Your task to perform on an android device: all mails in gmail Image 0: 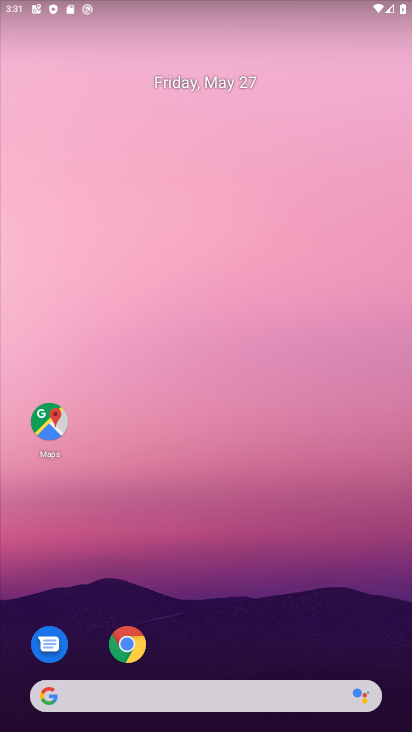
Step 0: drag from (274, 505) to (161, 40)
Your task to perform on an android device: all mails in gmail Image 1: 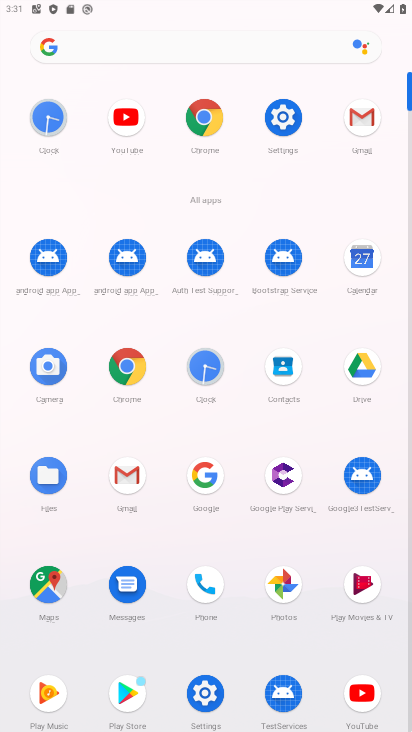
Step 1: click (126, 473)
Your task to perform on an android device: all mails in gmail Image 2: 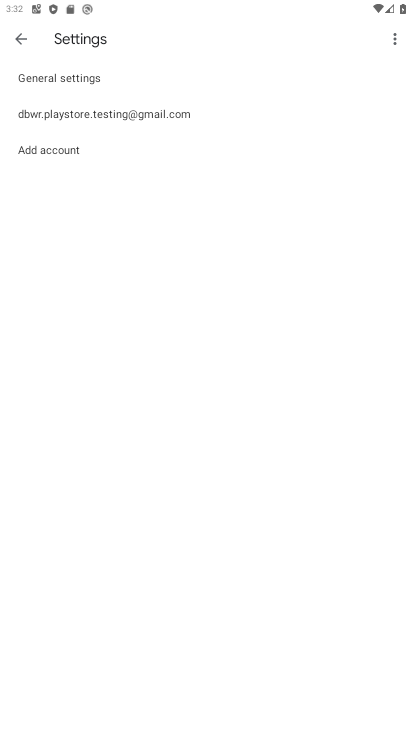
Step 2: click (12, 40)
Your task to perform on an android device: all mails in gmail Image 3: 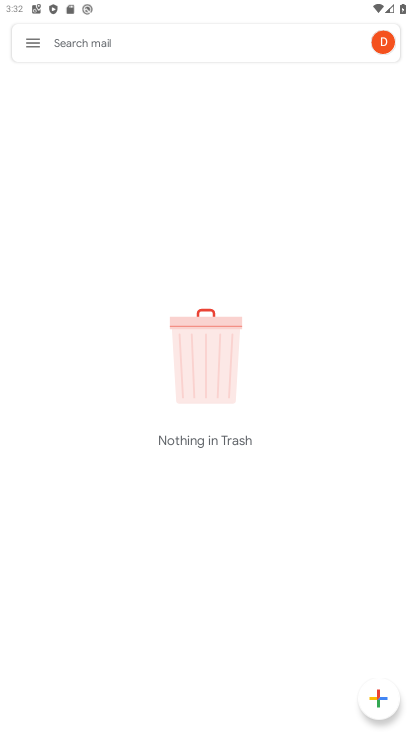
Step 3: click (36, 40)
Your task to perform on an android device: all mails in gmail Image 4: 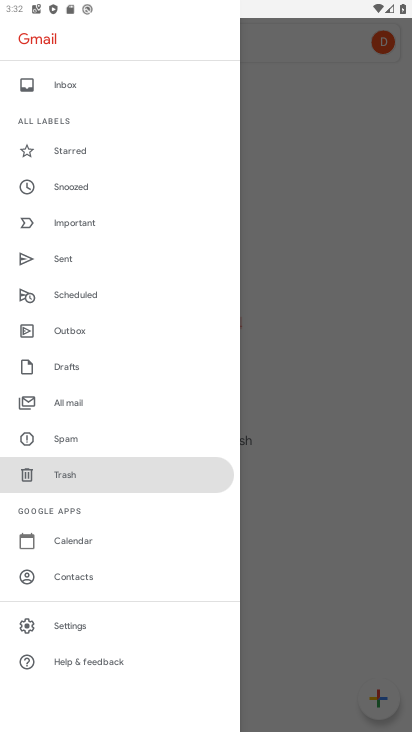
Step 4: click (107, 398)
Your task to perform on an android device: all mails in gmail Image 5: 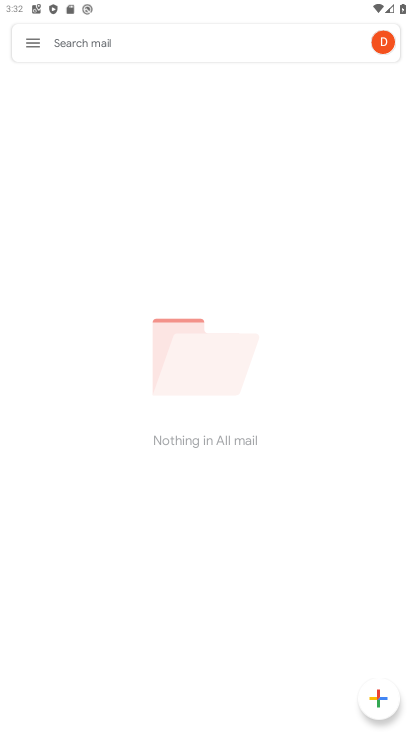
Step 5: task complete